Your task to perform on an android device: manage bookmarks in the chrome app Image 0: 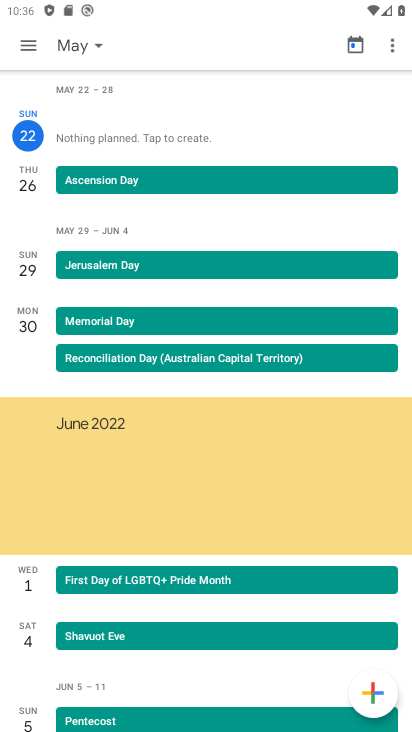
Step 0: press home button
Your task to perform on an android device: manage bookmarks in the chrome app Image 1: 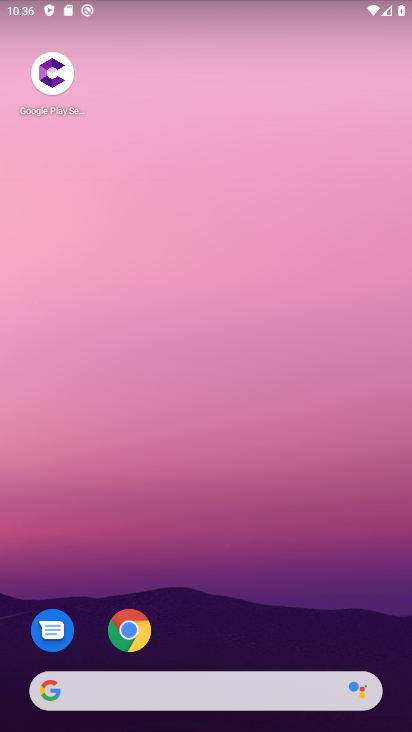
Step 1: drag from (340, 638) to (367, 164)
Your task to perform on an android device: manage bookmarks in the chrome app Image 2: 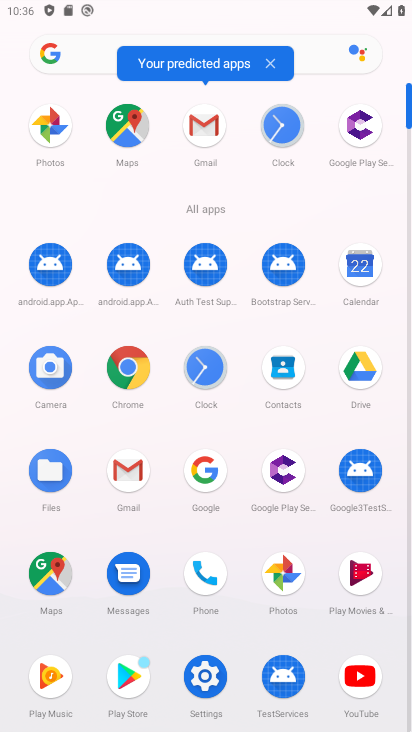
Step 2: click (131, 376)
Your task to perform on an android device: manage bookmarks in the chrome app Image 3: 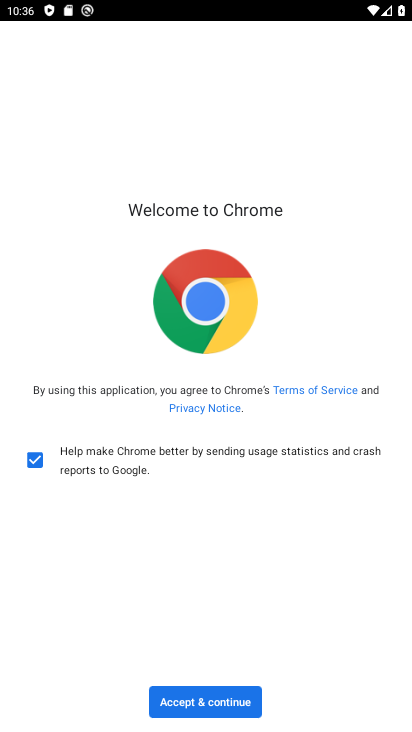
Step 3: click (156, 705)
Your task to perform on an android device: manage bookmarks in the chrome app Image 4: 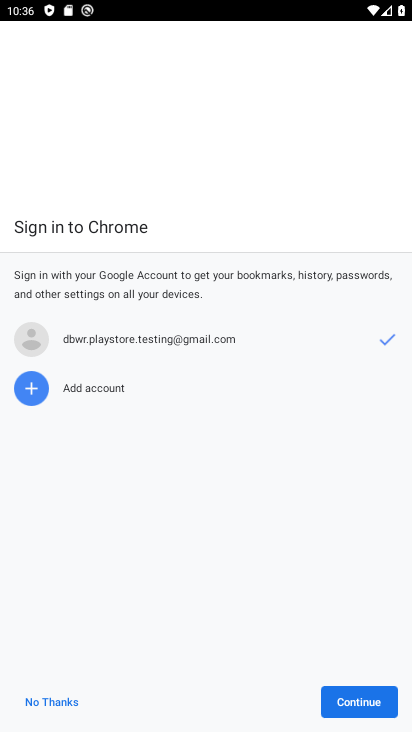
Step 4: click (353, 701)
Your task to perform on an android device: manage bookmarks in the chrome app Image 5: 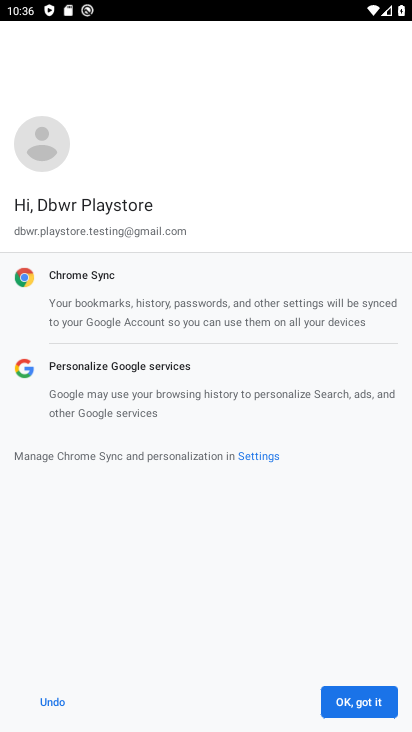
Step 5: click (359, 706)
Your task to perform on an android device: manage bookmarks in the chrome app Image 6: 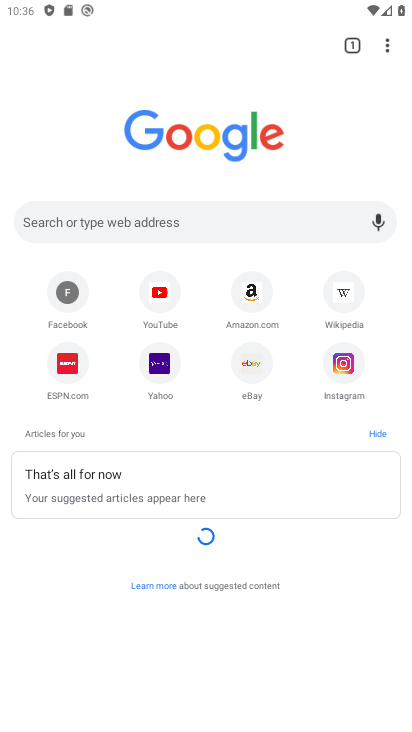
Step 6: click (385, 46)
Your task to perform on an android device: manage bookmarks in the chrome app Image 7: 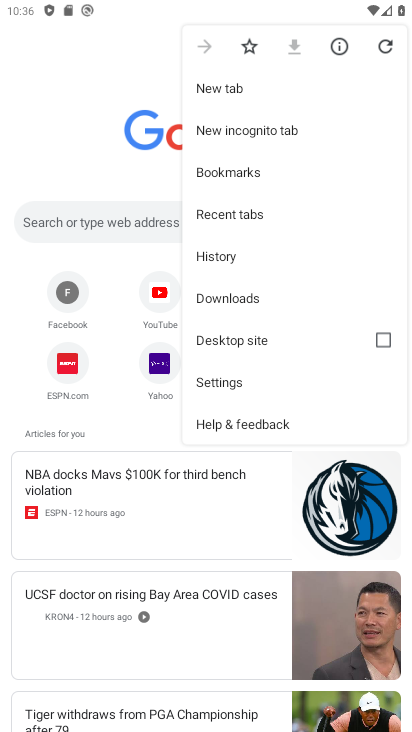
Step 7: click (268, 166)
Your task to perform on an android device: manage bookmarks in the chrome app Image 8: 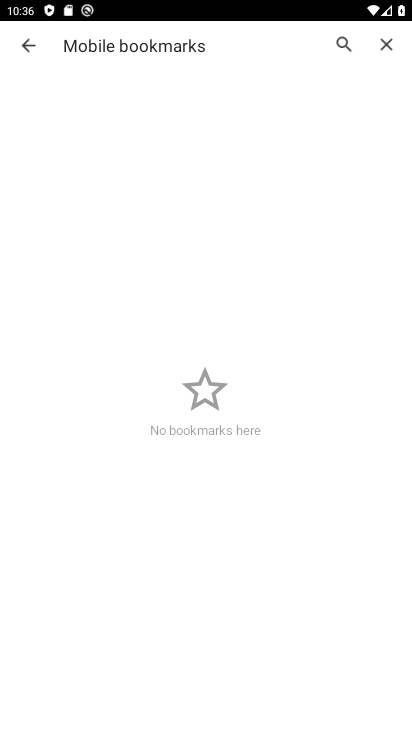
Step 8: task complete